Your task to perform on an android device: change notifications settings Image 0: 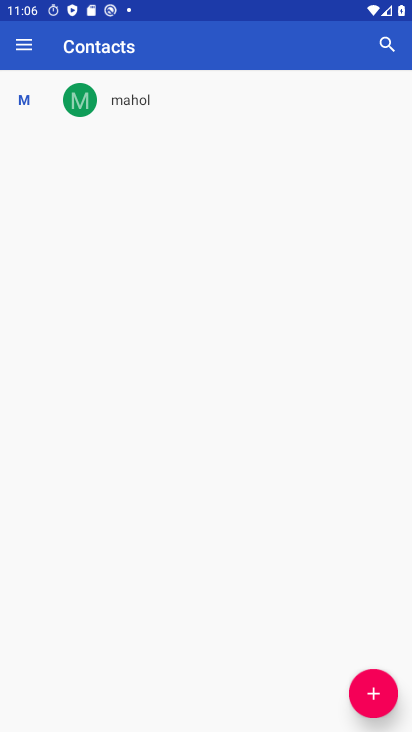
Step 0: press home button
Your task to perform on an android device: change notifications settings Image 1: 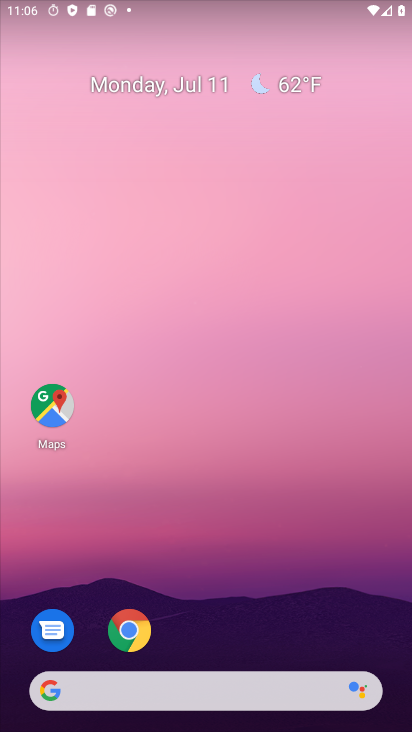
Step 1: drag from (255, 691) to (262, 92)
Your task to perform on an android device: change notifications settings Image 2: 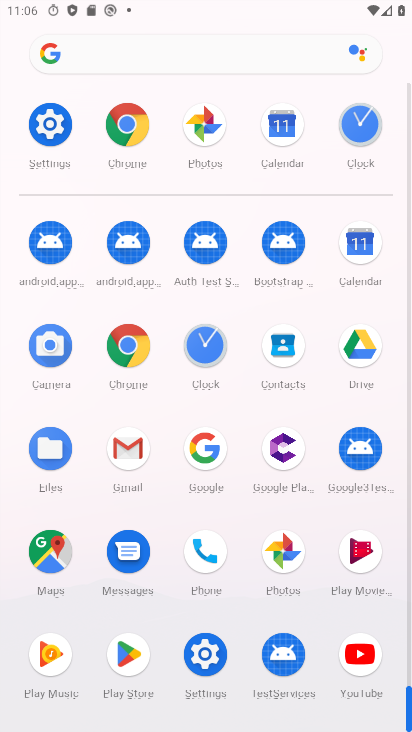
Step 2: click (52, 127)
Your task to perform on an android device: change notifications settings Image 3: 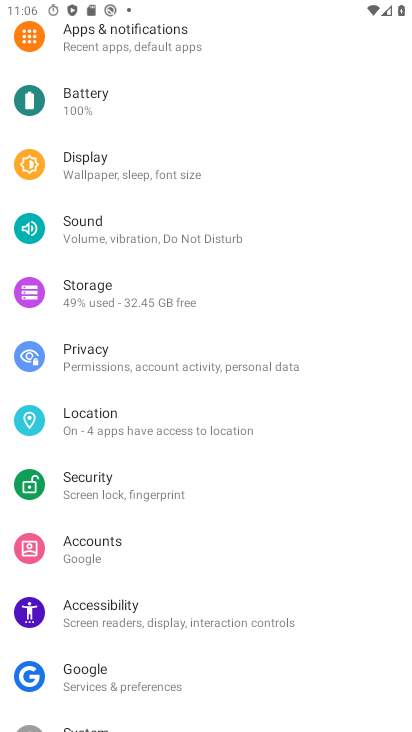
Step 3: click (156, 40)
Your task to perform on an android device: change notifications settings Image 4: 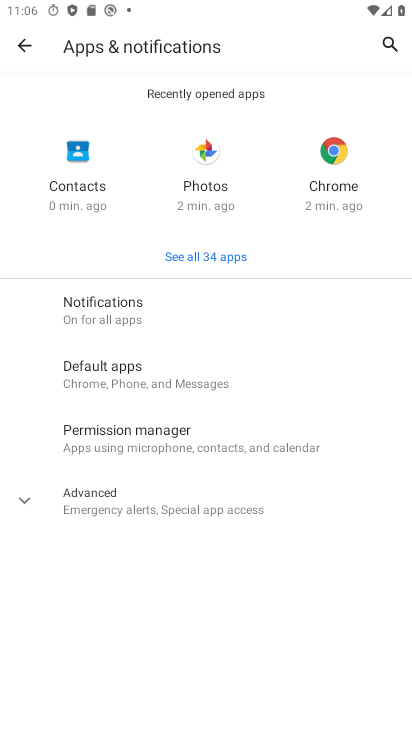
Step 4: click (136, 309)
Your task to perform on an android device: change notifications settings Image 5: 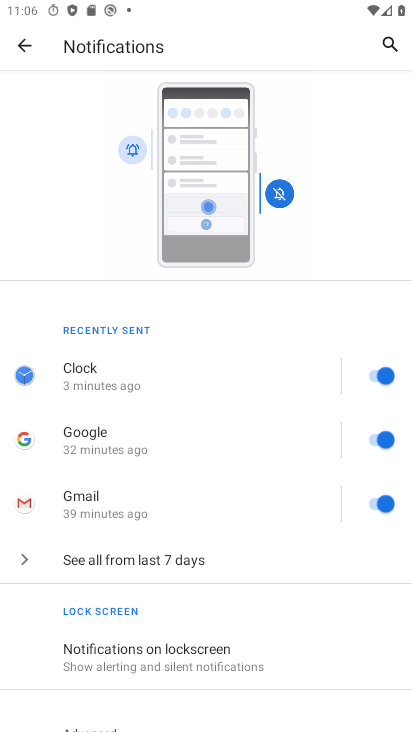
Step 5: click (375, 372)
Your task to perform on an android device: change notifications settings Image 6: 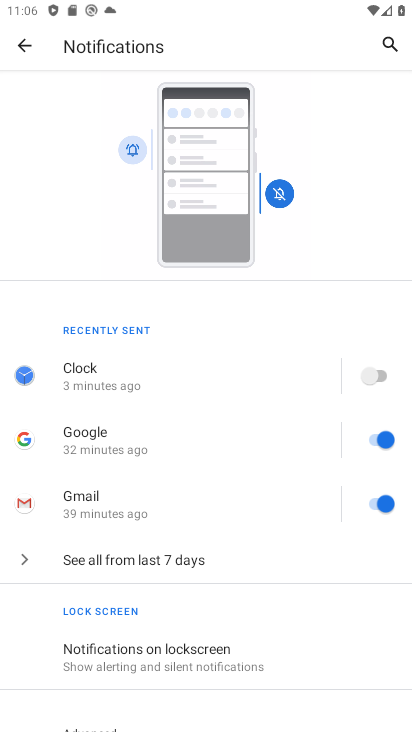
Step 6: task complete